Your task to perform on an android device: Open the calendar and show me this week's events? Image 0: 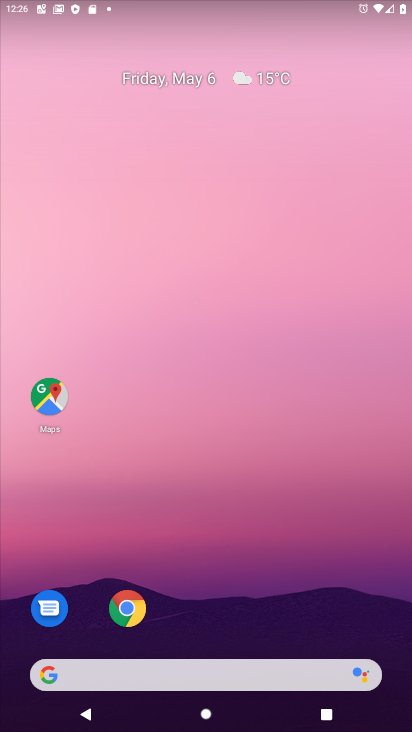
Step 0: drag from (207, 610) to (214, 130)
Your task to perform on an android device: Open the calendar and show me this week's events? Image 1: 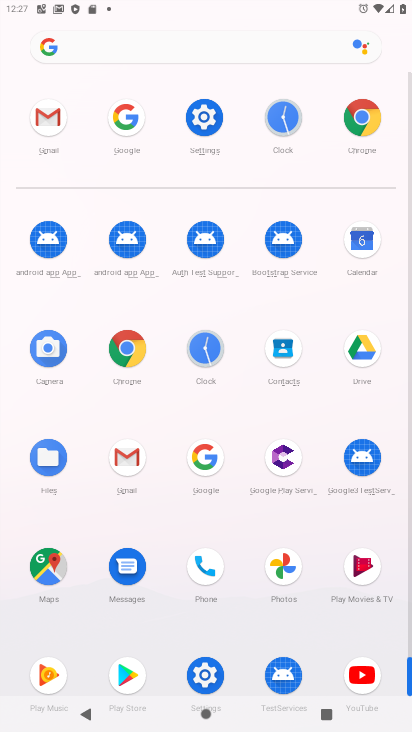
Step 1: click (364, 247)
Your task to perform on an android device: Open the calendar and show me this week's events? Image 2: 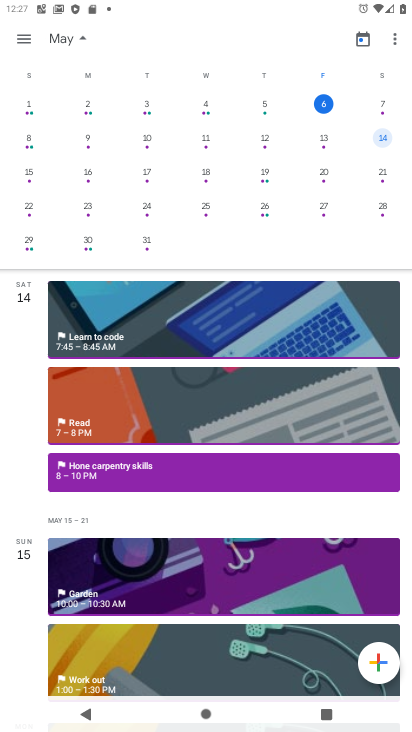
Step 2: click (380, 112)
Your task to perform on an android device: Open the calendar and show me this week's events? Image 3: 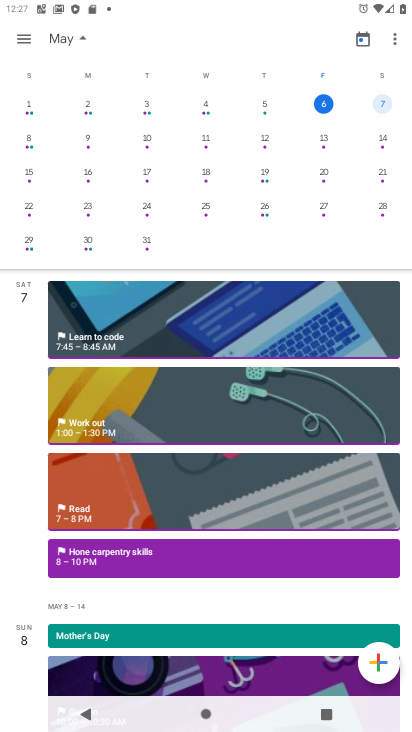
Step 3: task complete